Your task to perform on an android device: Open Google Chrome and open the bookmarks view Image 0: 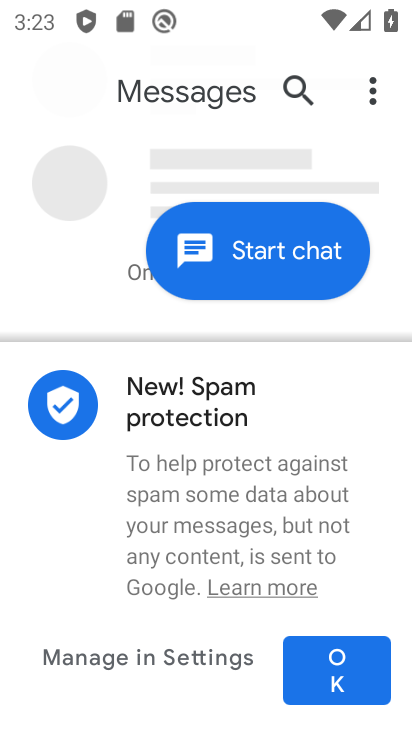
Step 0: press home button
Your task to perform on an android device: Open Google Chrome and open the bookmarks view Image 1: 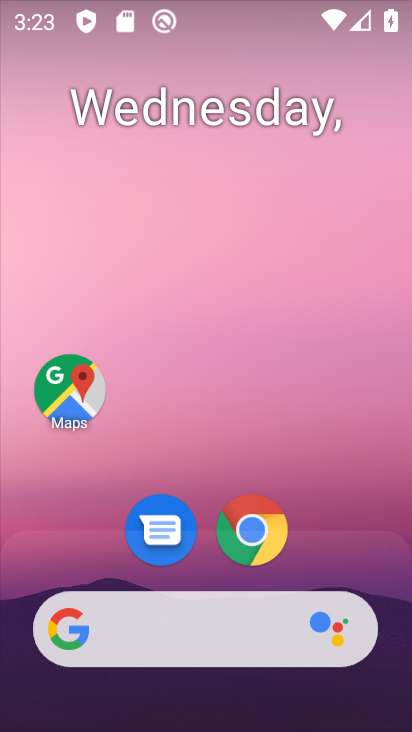
Step 1: click (263, 536)
Your task to perform on an android device: Open Google Chrome and open the bookmarks view Image 2: 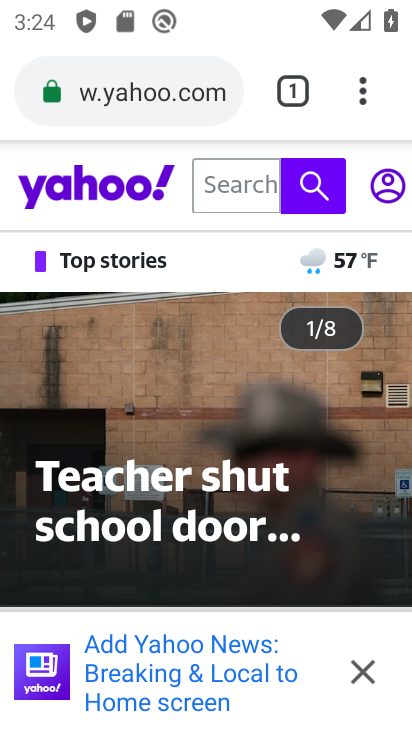
Step 2: task complete